Your task to perform on an android device: Open Yahoo.com Image 0: 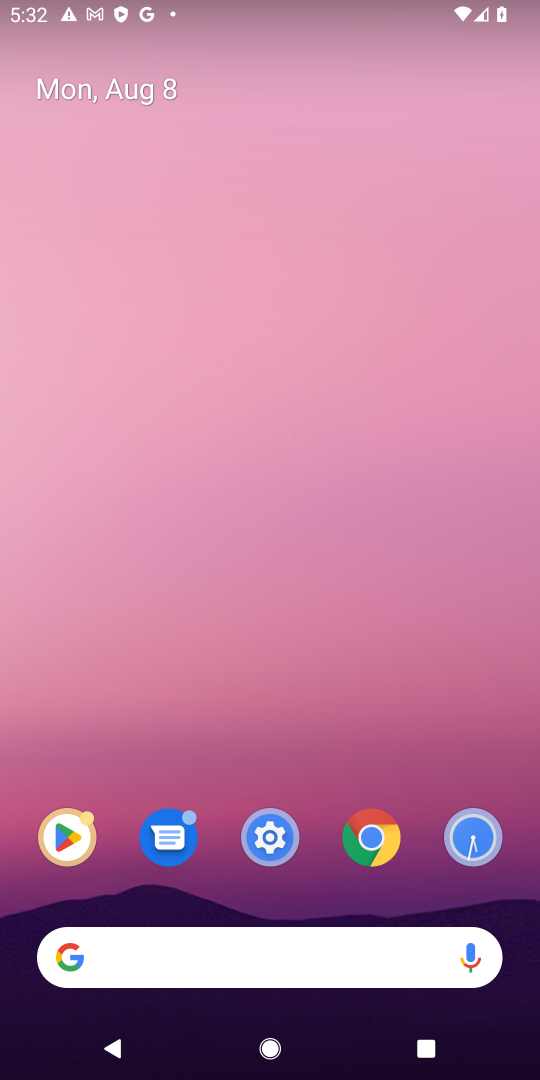
Step 0: drag from (255, 614) to (150, 43)
Your task to perform on an android device: Open Yahoo.com Image 1: 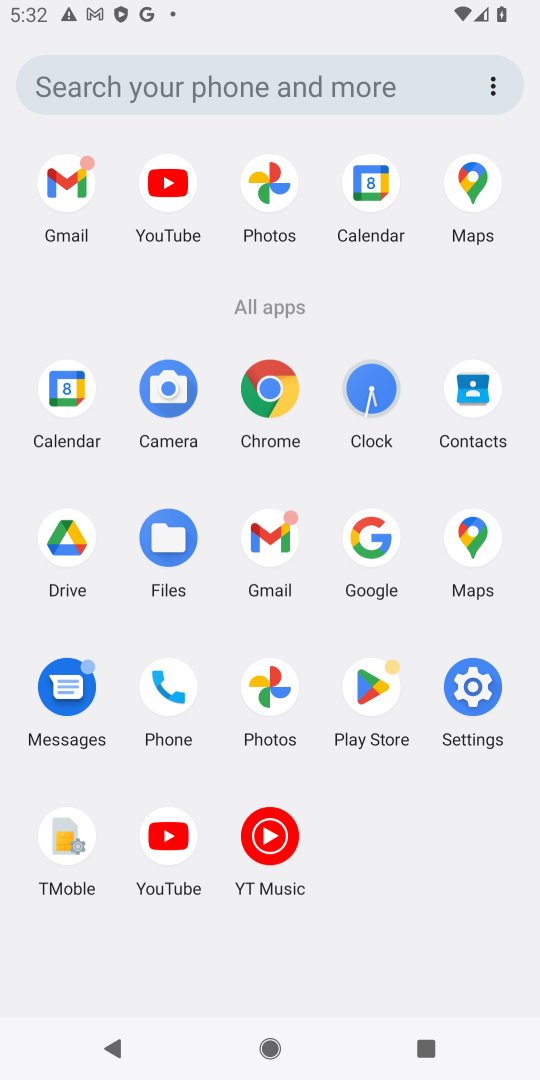
Step 1: click (267, 385)
Your task to perform on an android device: Open Yahoo.com Image 2: 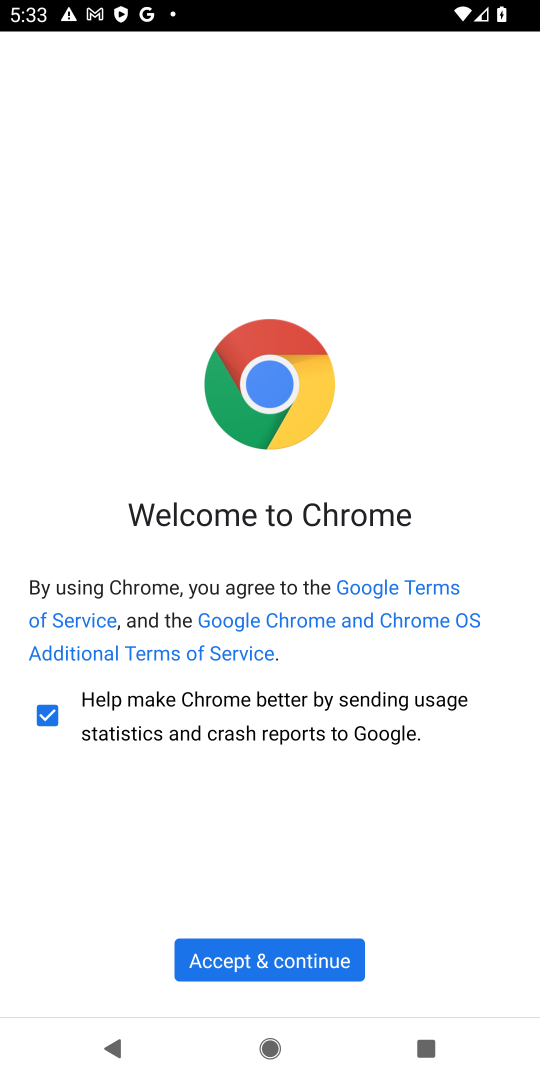
Step 2: click (315, 948)
Your task to perform on an android device: Open Yahoo.com Image 3: 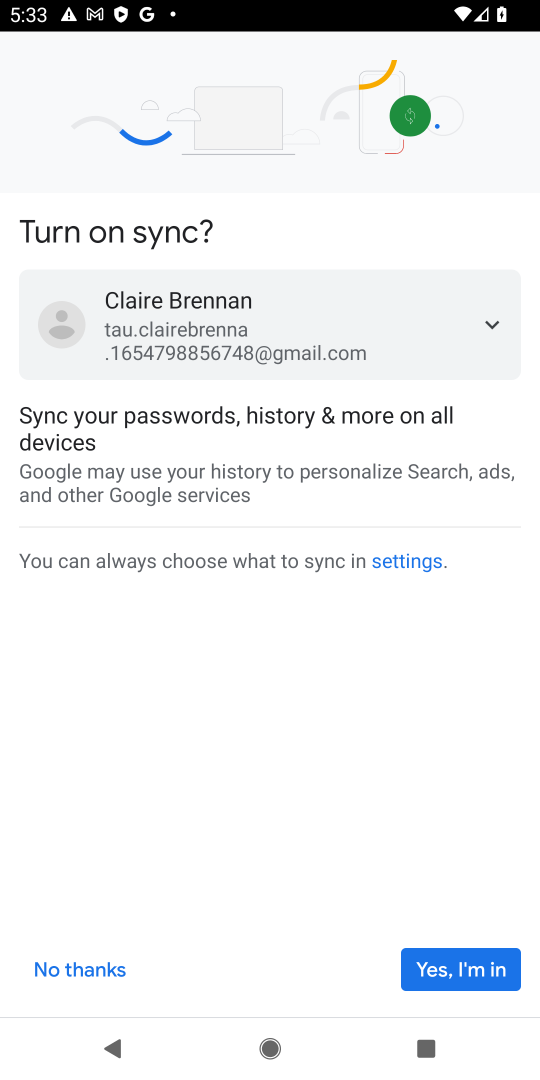
Step 3: click (110, 976)
Your task to perform on an android device: Open Yahoo.com Image 4: 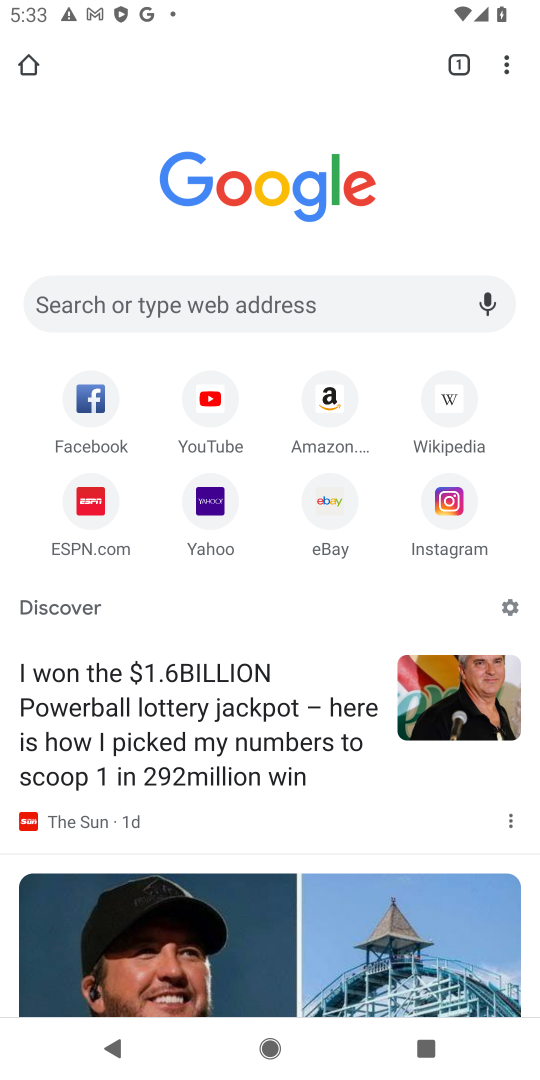
Step 4: click (190, 509)
Your task to perform on an android device: Open Yahoo.com Image 5: 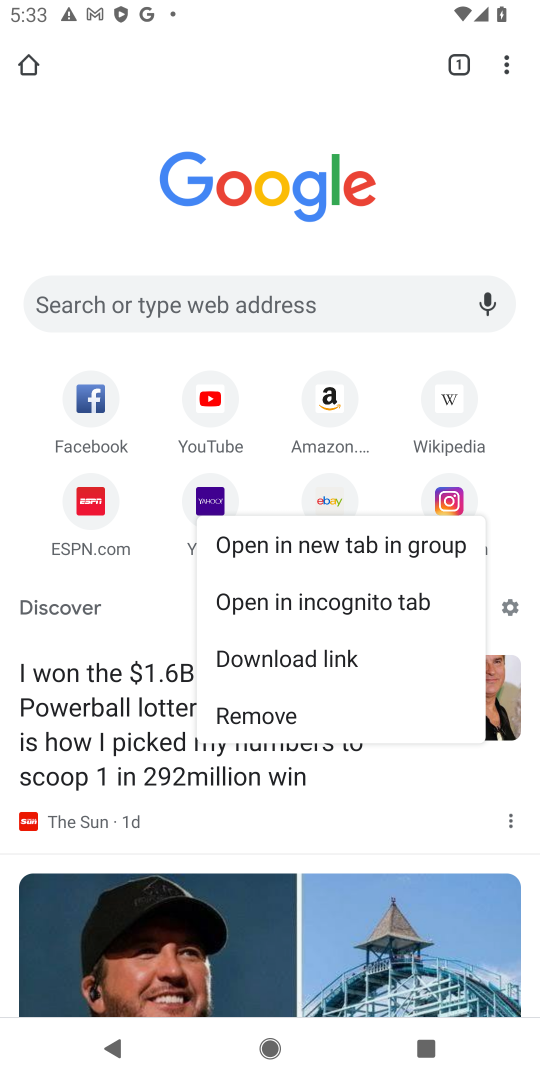
Step 5: click (221, 491)
Your task to perform on an android device: Open Yahoo.com Image 6: 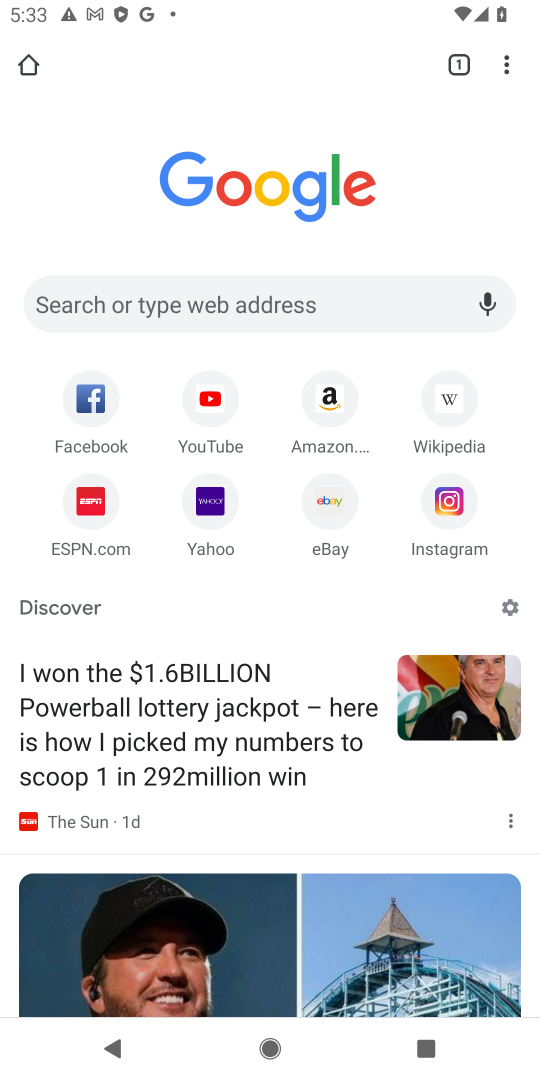
Step 6: click (207, 512)
Your task to perform on an android device: Open Yahoo.com Image 7: 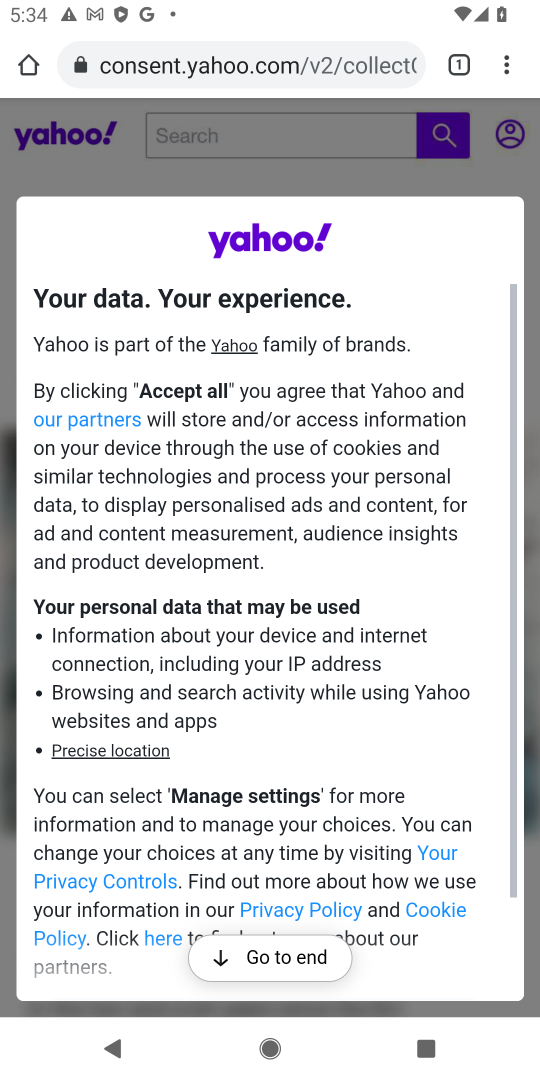
Step 7: task complete